Your task to perform on an android device: turn pop-ups on in chrome Image 0: 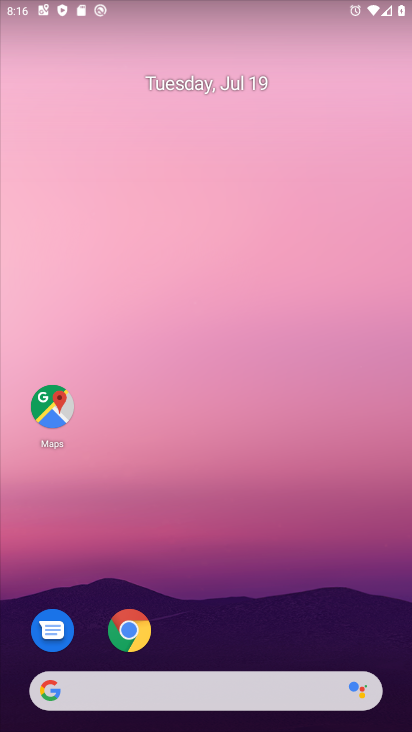
Step 0: drag from (317, 639) to (211, 116)
Your task to perform on an android device: turn pop-ups on in chrome Image 1: 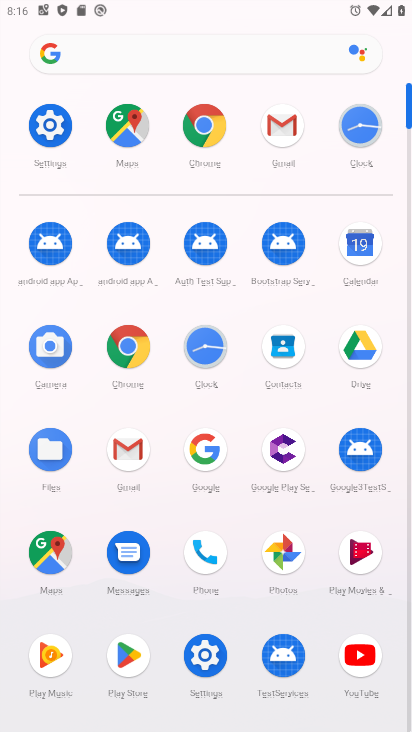
Step 1: click (200, 122)
Your task to perform on an android device: turn pop-ups on in chrome Image 2: 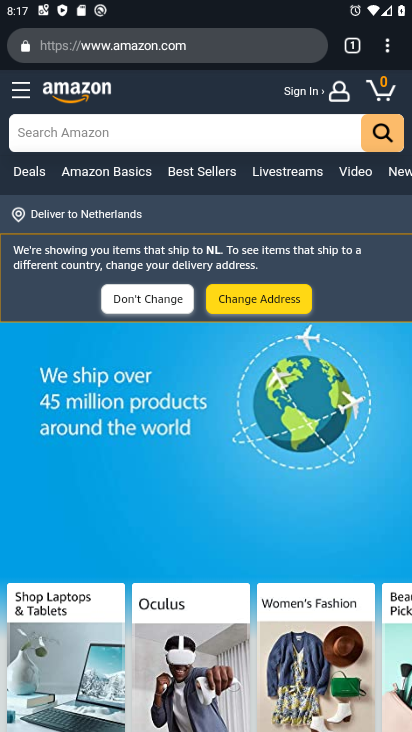
Step 2: drag from (389, 43) to (231, 547)
Your task to perform on an android device: turn pop-ups on in chrome Image 3: 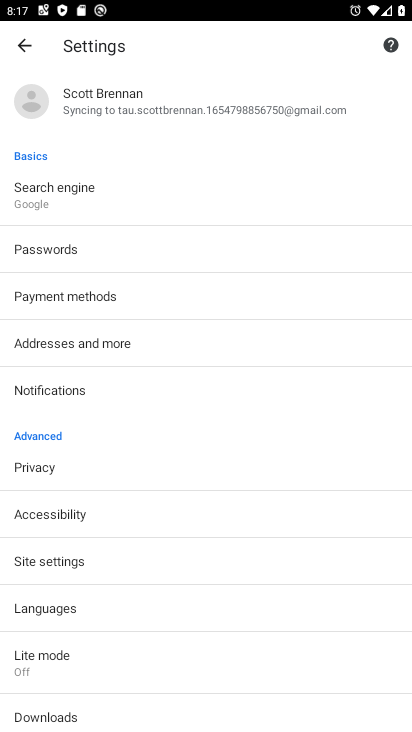
Step 3: click (65, 559)
Your task to perform on an android device: turn pop-ups on in chrome Image 4: 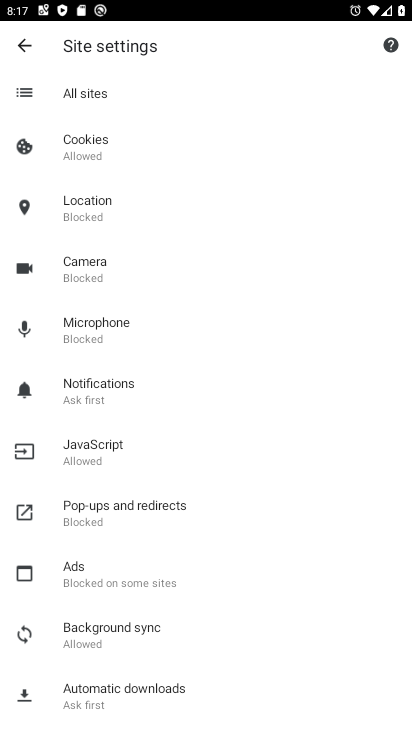
Step 4: click (143, 516)
Your task to perform on an android device: turn pop-ups on in chrome Image 5: 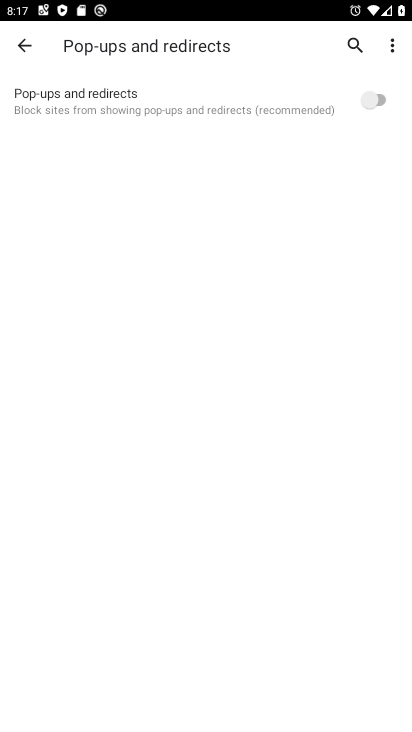
Step 5: click (377, 98)
Your task to perform on an android device: turn pop-ups on in chrome Image 6: 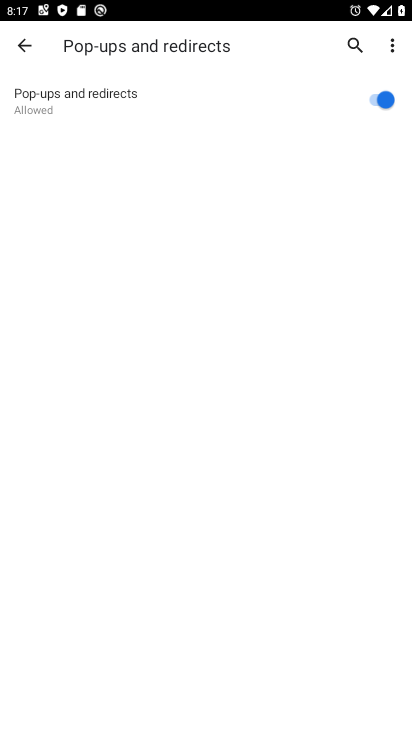
Step 6: task complete